Your task to perform on an android device: Search for vegetarian restaurants on Maps Image 0: 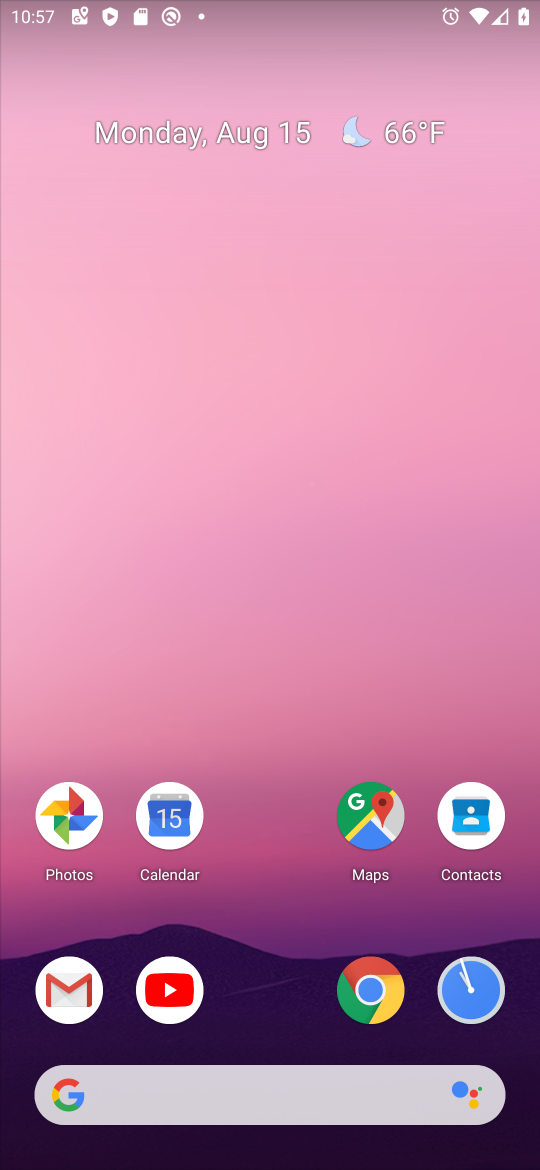
Step 0: click (377, 818)
Your task to perform on an android device: Search for vegetarian restaurants on Maps Image 1: 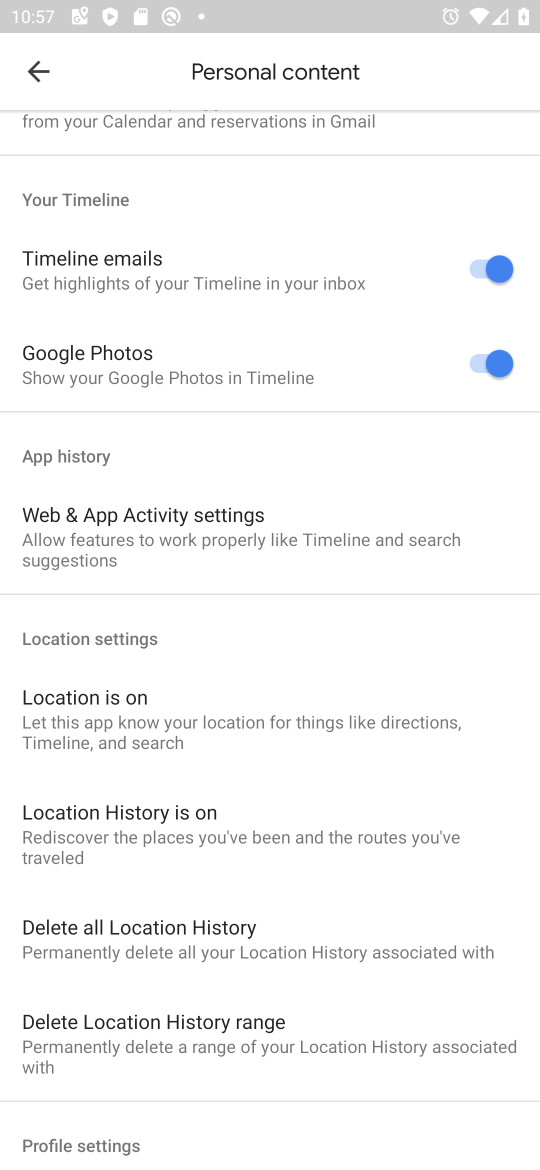
Step 1: click (44, 67)
Your task to perform on an android device: Search for vegetarian restaurants on Maps Image 2: 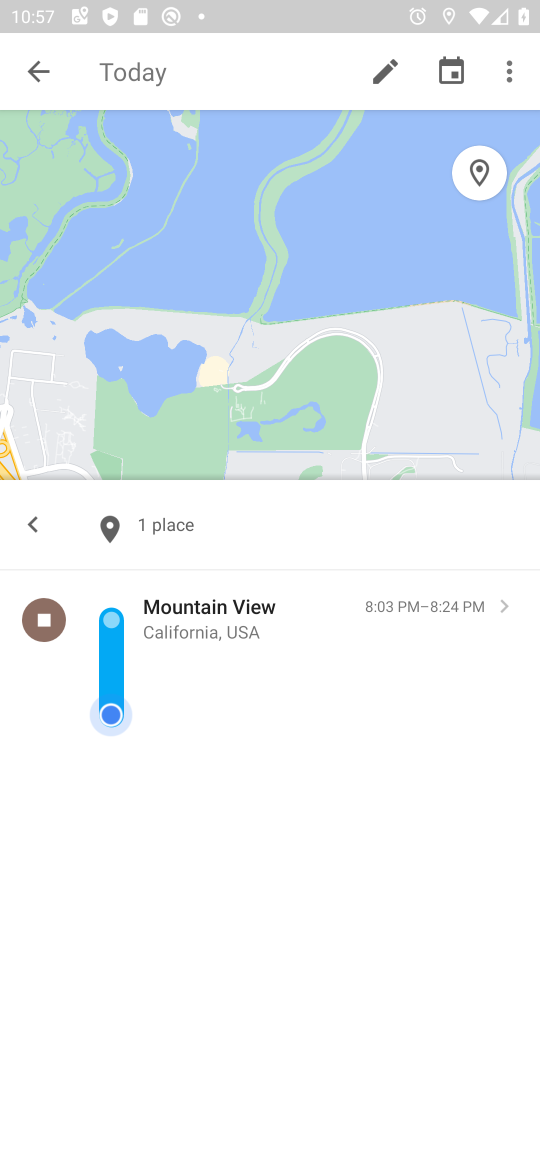
Step 2: click (44, 60)
Your task to perform on an android device: Search for vegetarian restaurants on Maps Image 3: 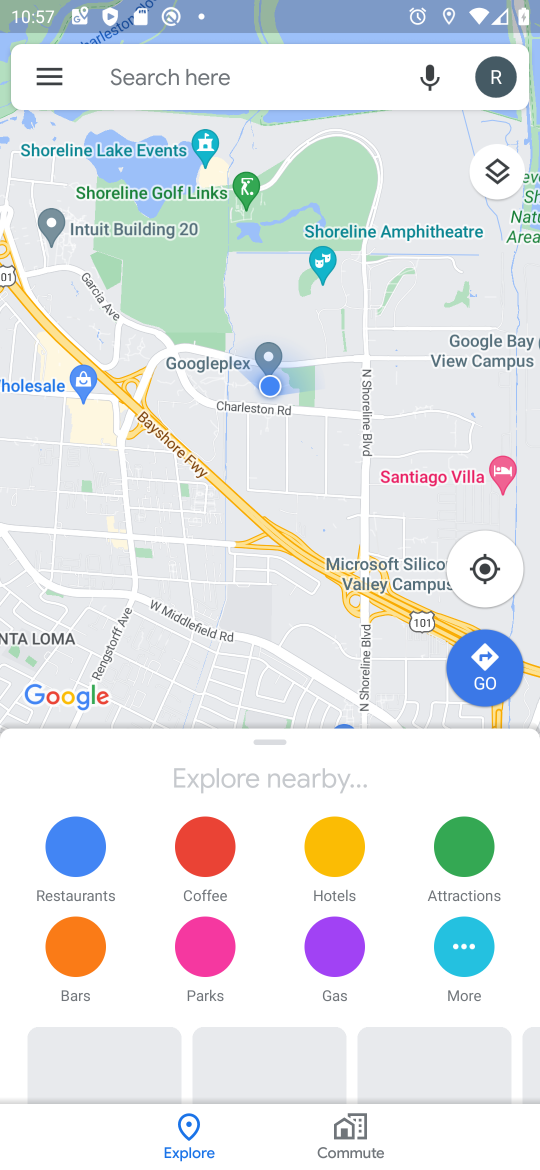
Step 3: click (225, 70)
Your task to perform on an android device: Search for vegetarian restaurants on Maps Image 4: 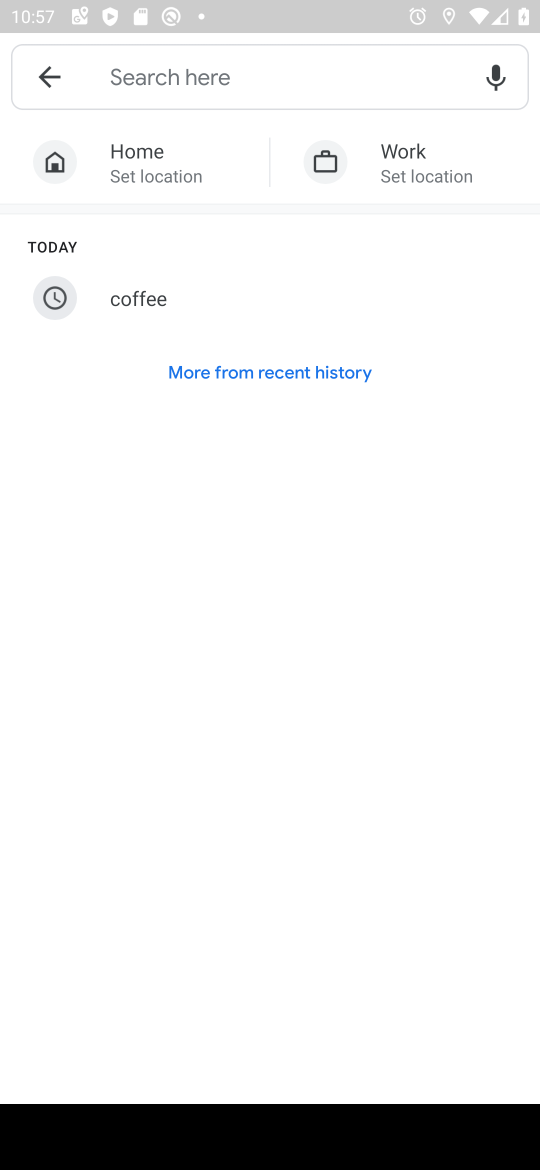
Step 4: type "vegetarian restaurants"
Your task to perform on an android device: Search for vegetarian restaurants on Maps Image 5: 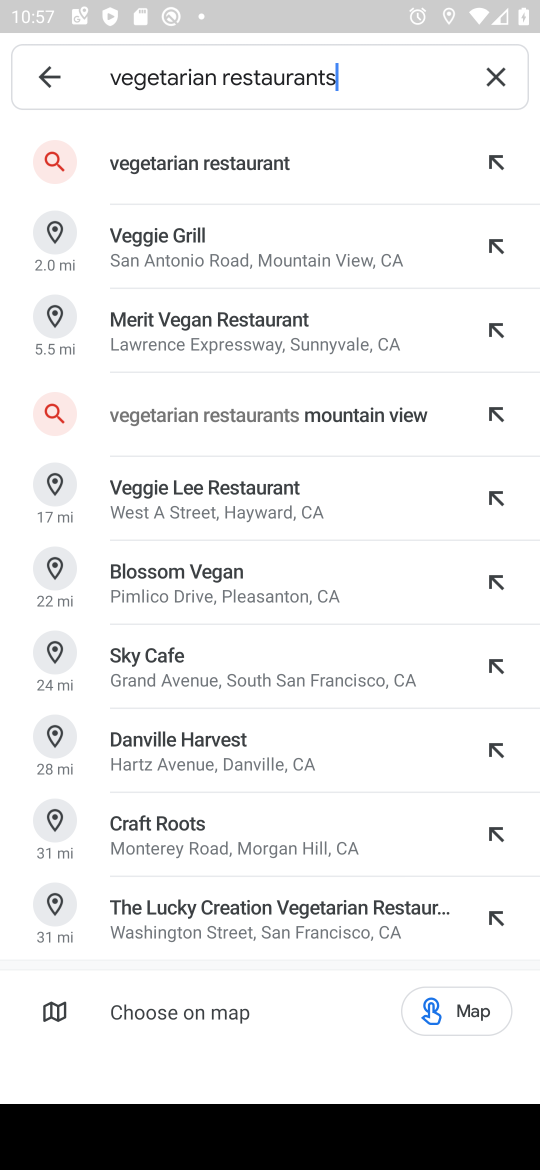
Step 5: click (263, 156)
Your task to perform on an android device: Search for vegetarian restaurants on Maps Image 6: 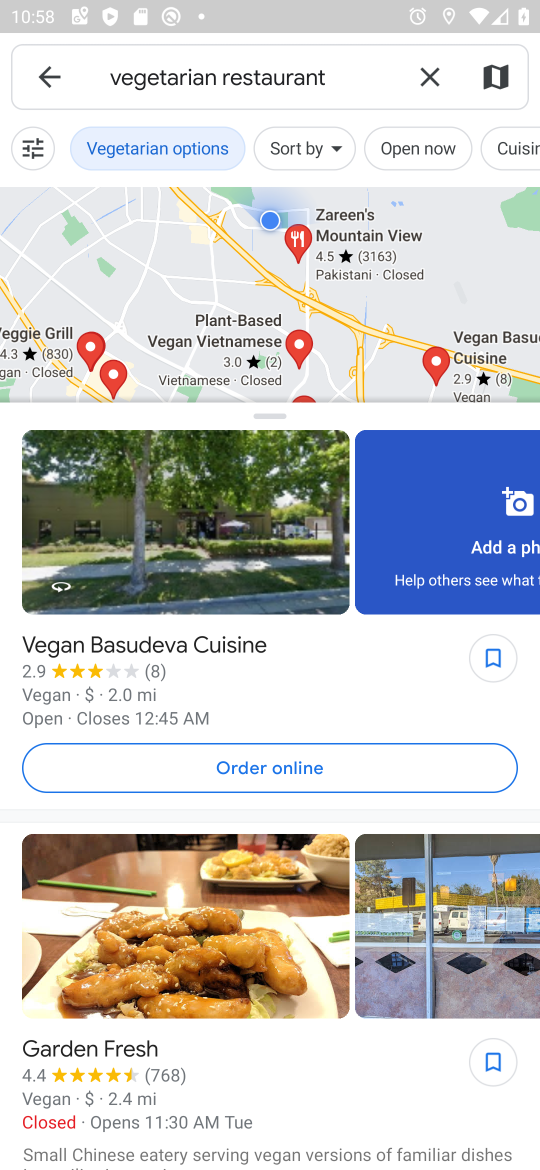
Step 6: task complete